Your task to perform on an android device: toggle pop-ups in chrome Image 0: 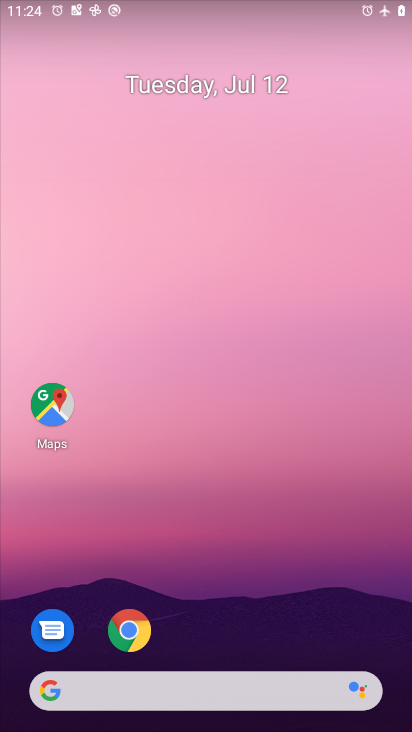
Step 0: press home button
Your task to perform on an android device: toggle pop-ups in chrome Image 1: 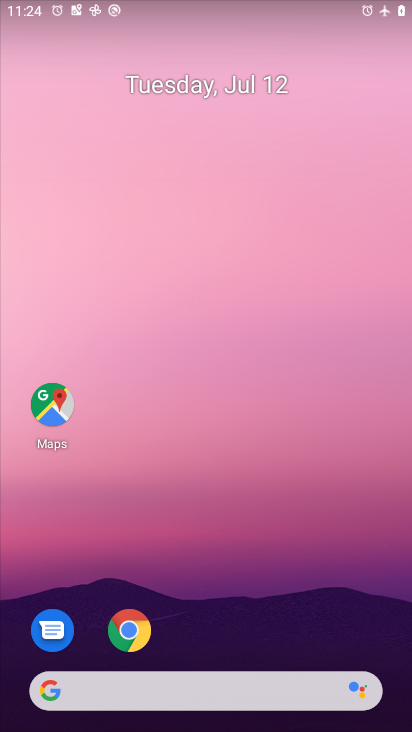
Step 1: drag from (273, 587) to (229, 74)
Your task to perform on an android device: toggle pop-ups in chrome Image 2: 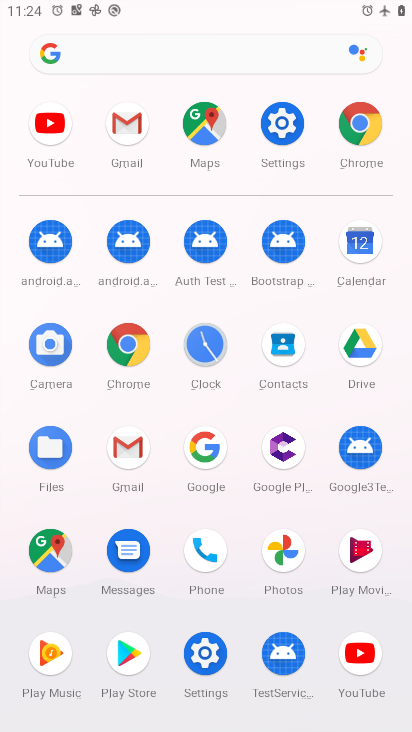
Step 2: click (362, 135)
Your task to perform on an android device: toggle pop-ups in chrome Image 3: 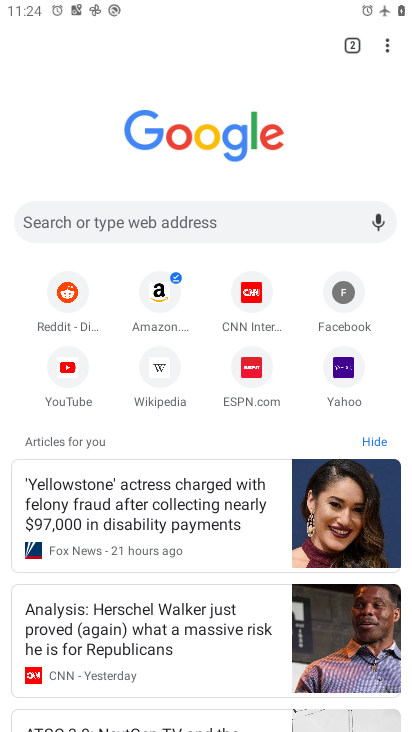
Step 3: click (390, 42)
Your task to perform on an android device: toggle pop-ups in chrome Image 4: 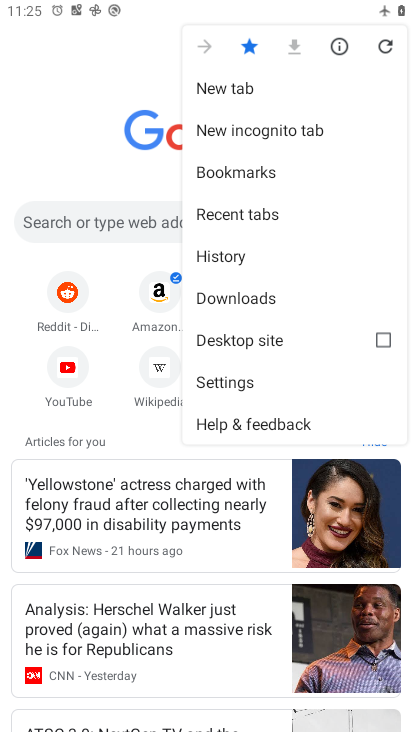
Step 4: click (246, 380)
Your task to perform on an android device: toggle pop-ups in chrome Image 5: 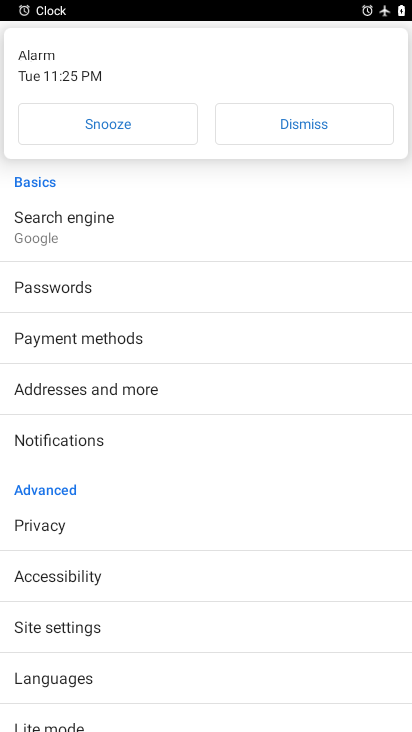
Step 5: click (63, 619)
Your task to perform on an android device: toggle pop-ups in chrome Image 6: 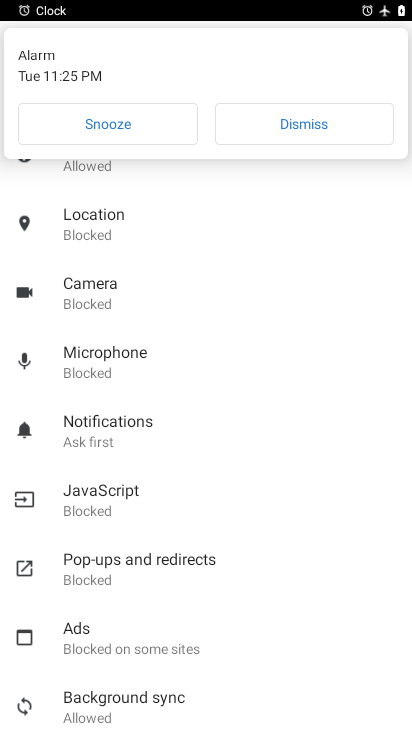
Step 6: click (123, 561)
Your task to perform on an android device: toggle pop-ups in chrome Image 7: 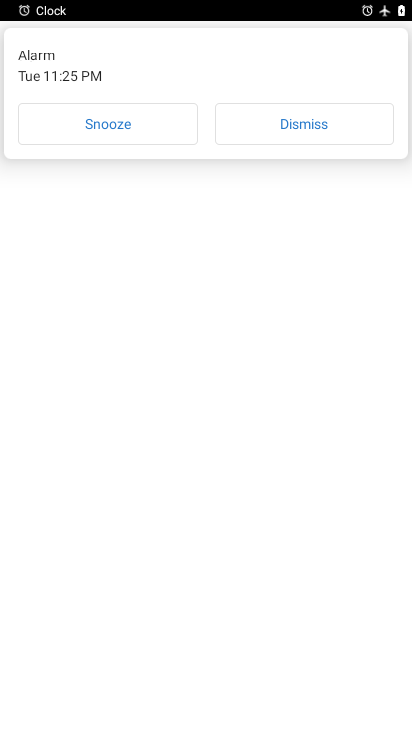
Step 7: click (319, 128)
Your task to perform on an android device: toggle pop-ups in chrome Image 8: 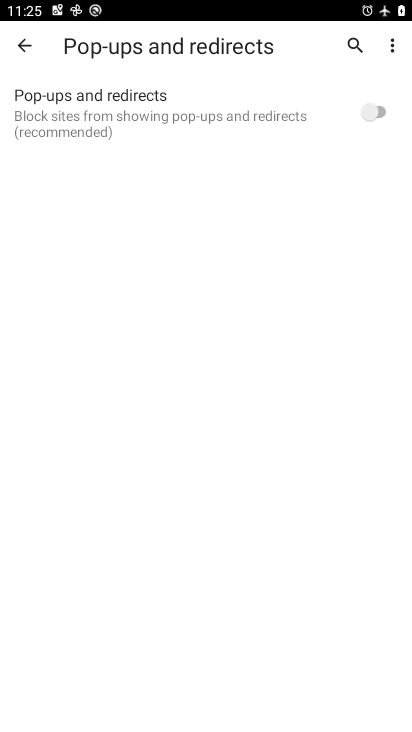
Step 8: click (371, 108)
Your task to perform on an android device: toggle pop-ups in chrome Image 9: 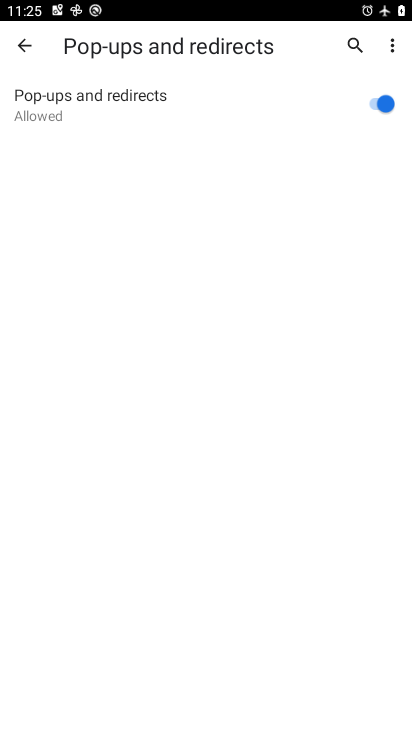
Step 9: task complete